Your task to perform on an android device: Open calendar and show me the first week of next month Image 0: 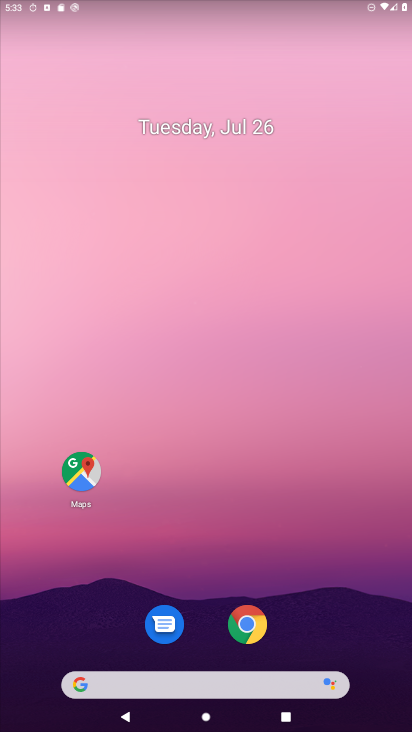
Step 0: drag from (116, 657) to (201, 106)
Your task to perform on an android device: Open calendar and show me the first week of next month Image 1: 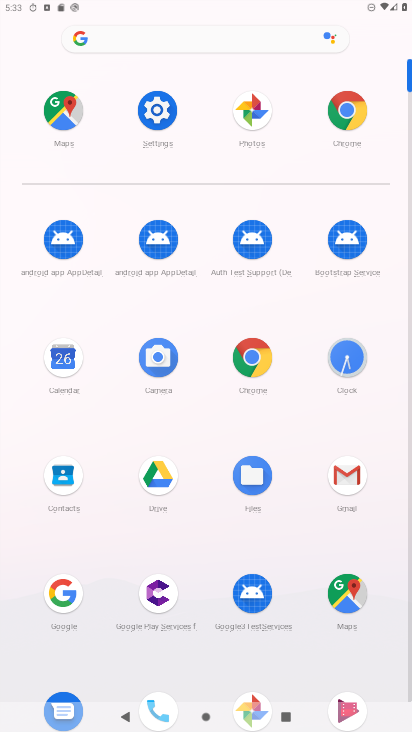
Step 1: click (65, 359)
Your task to perform on an android device: Open calendar and show me the first week of next month Image 2: 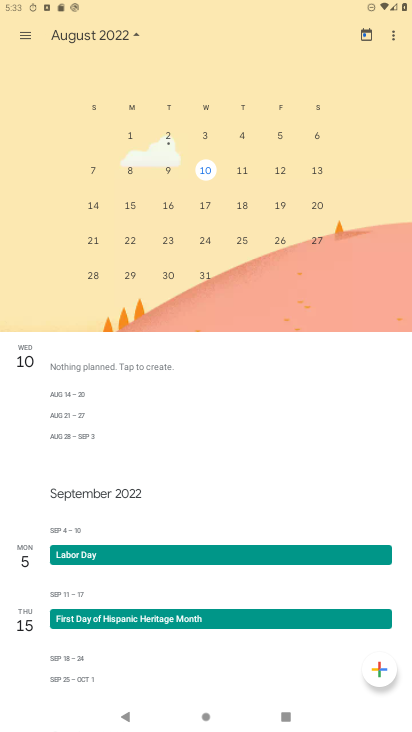
Step 2: click (238, 132)
Your task to perform on an android device: Open calendar and show me the first week of next month Image 3: 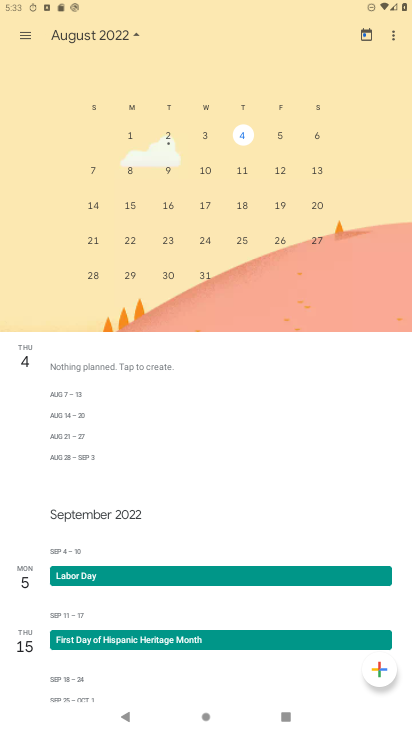
Step 3: task complete